Your task to perform on an android device: What's the weather going to be this weekend? Image 0: 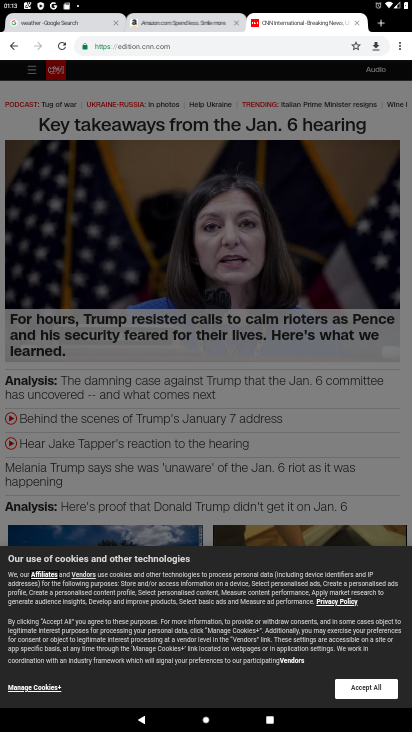
Step 0: drag from (141, 213) to (149, 35)
Your task to perform on an android device: What's the weather going to be this weekend? Image 1: 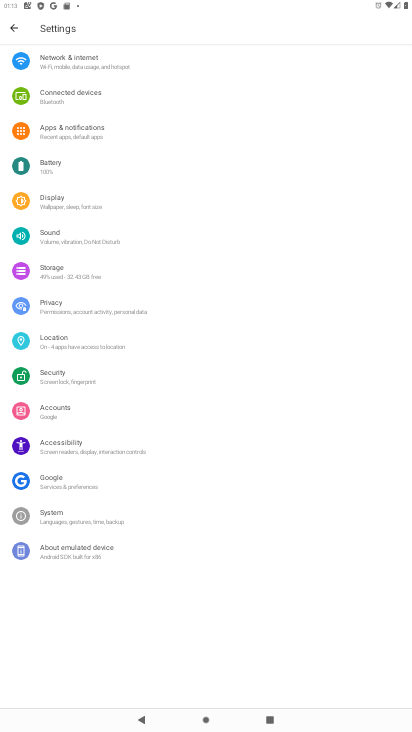
Step 1: press home button
Your task to perform on an android device: What's the weather going to be this weekend? Image 2: 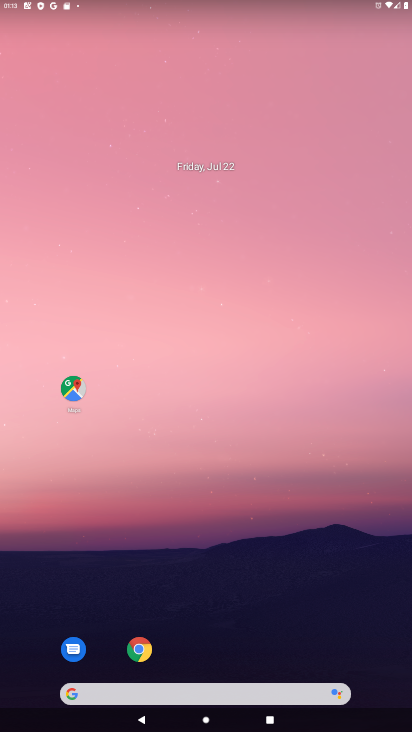
Step 2: drag from (216, 649) to (76, 71)
Your task to perform on an android device: What's the weather going to be this weekend? Image 3: 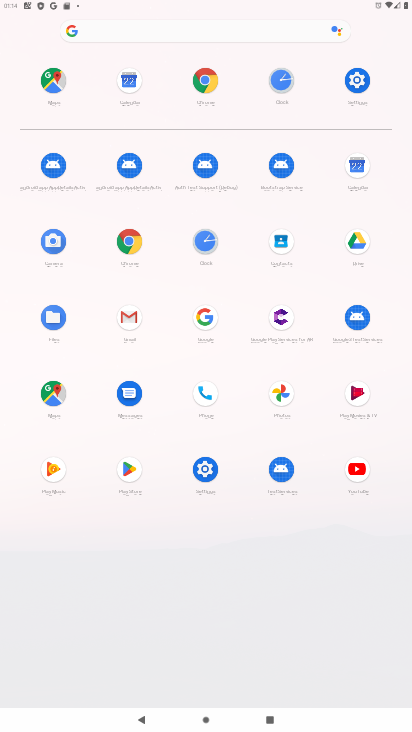
Step 3: click (130, 242)
Your task to perform on an android device: What's the weather going to be this weekend? Image 4: 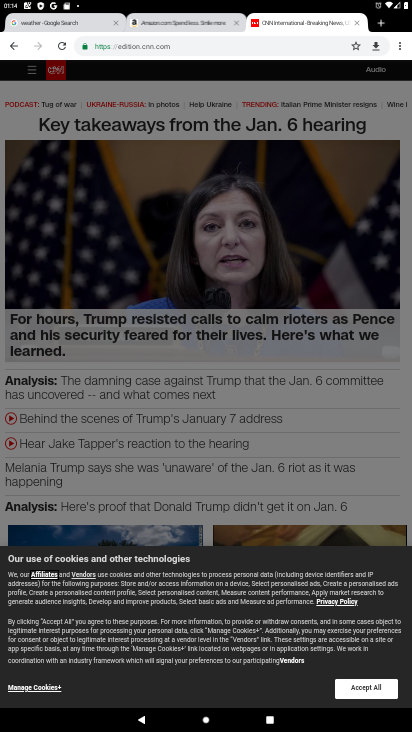
Step 4: click (123, 49)
Your task to perform on an android device: What's the weather going to be this weekend? Image 5: 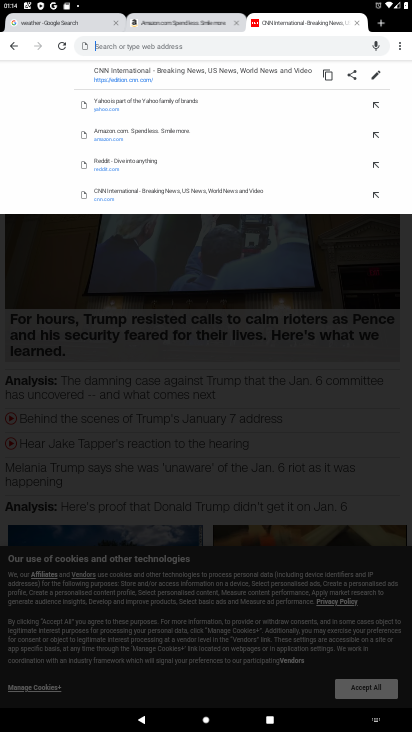
Step 5: type ""
Your task to perform on an android device: What's the weather going to be this weekend? Image 6: 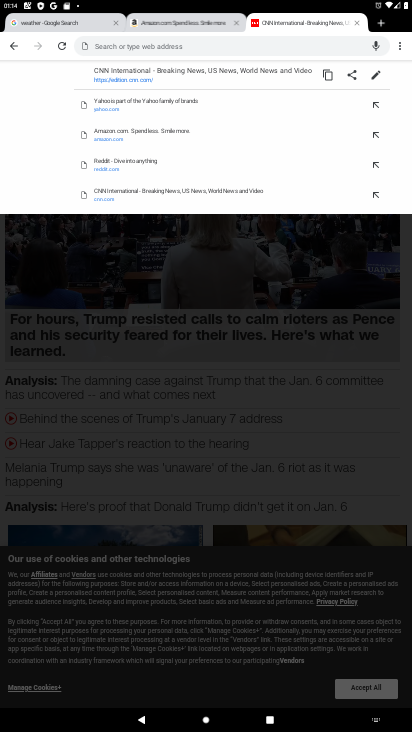
Step 6: type "weather"
Your task to perform on an android device: What's the weather going to be this weekend? Image 7: 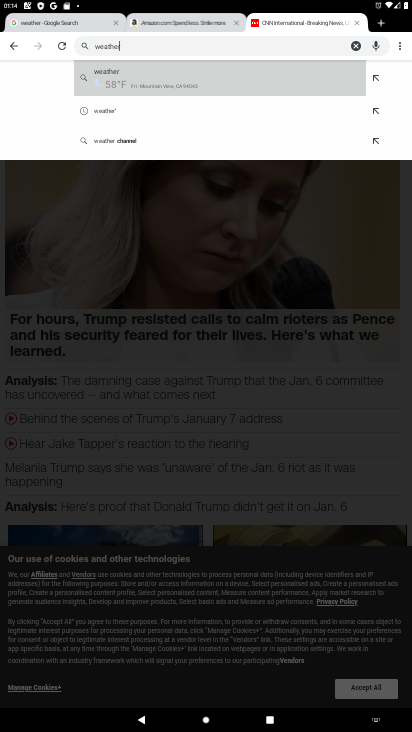
Step 7: click (131, 85)
Your task to perform on an android device: What's the weather going to be this weekend? Image 8: 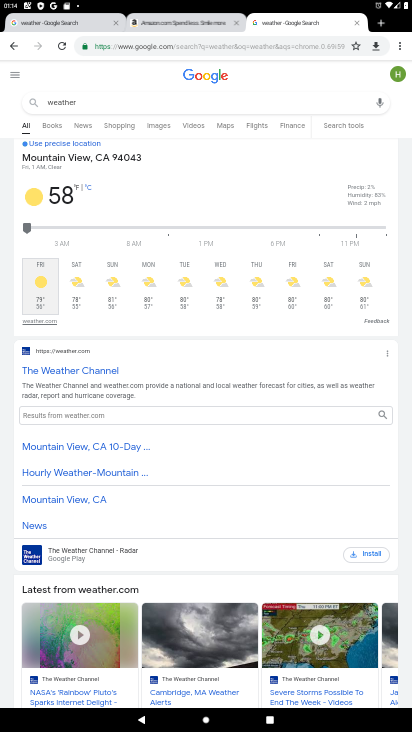
Step 8: click (108, 284)
Your task to perform on an android device: What's the weather going to be this weekend? Image 9: 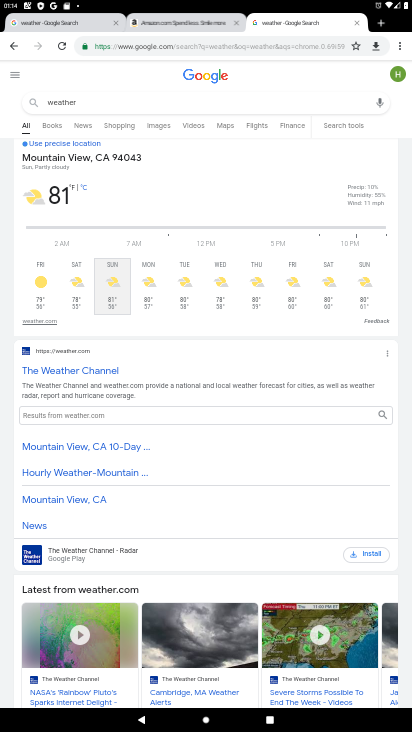
Step 9: task complete